Your task to perform on an android device: turn off wifi Image 0: 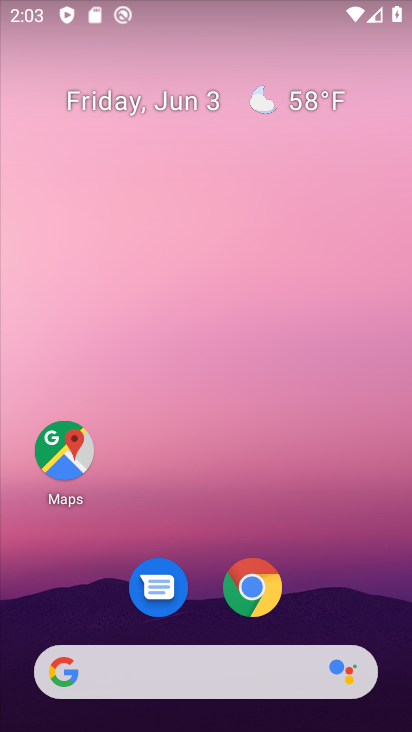
Step 0: drag from (49, 11) to (119, 507)
Your task to perform on an android device: turn off wifi Image 1: 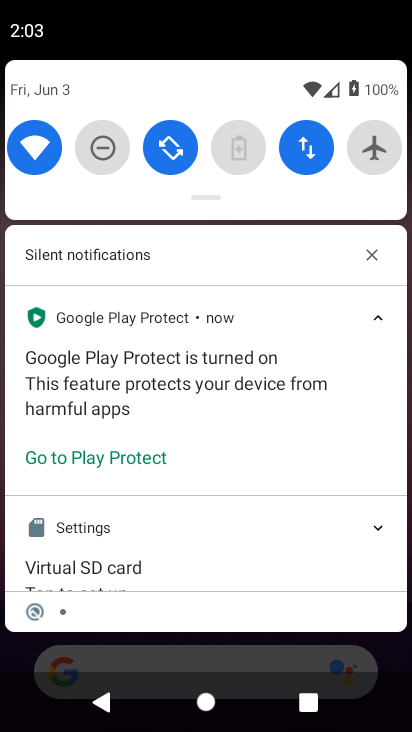
Step 1: click (27, 146)
Your task to perform on an android device: turn off wifi Image 2: 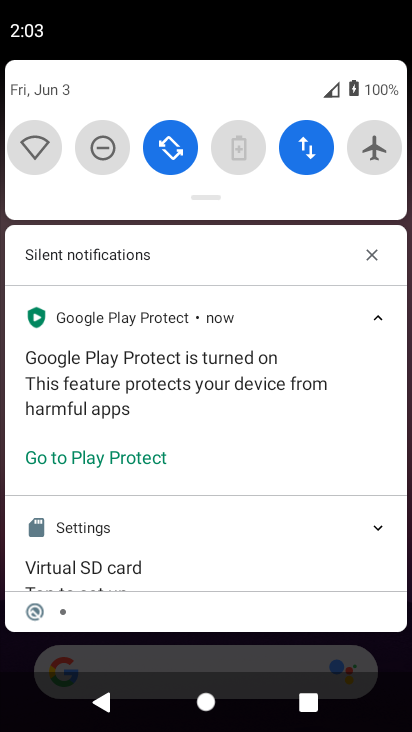
Step 2: task complete